Your task to perform on an android device: open a bookmark in the chrome app Image 0: 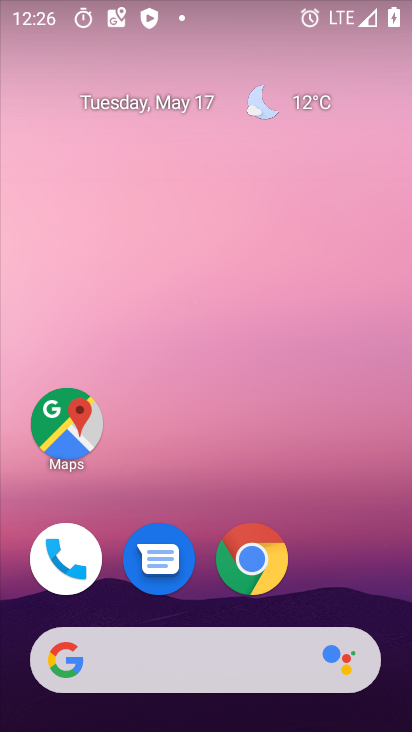
Step 0: click (249, 557)
Your task to perform on an android device: open a bookmark in the chrome app Image 1: 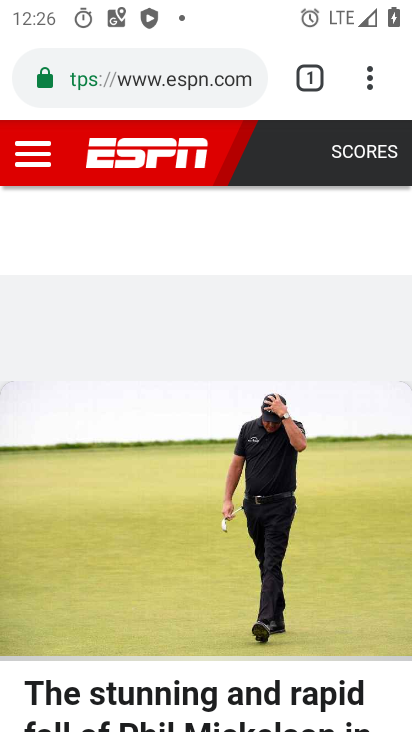
Step 1: click (377, 69)
Your task to perform on an android device: open a bookmark in the chrome app Image 2: 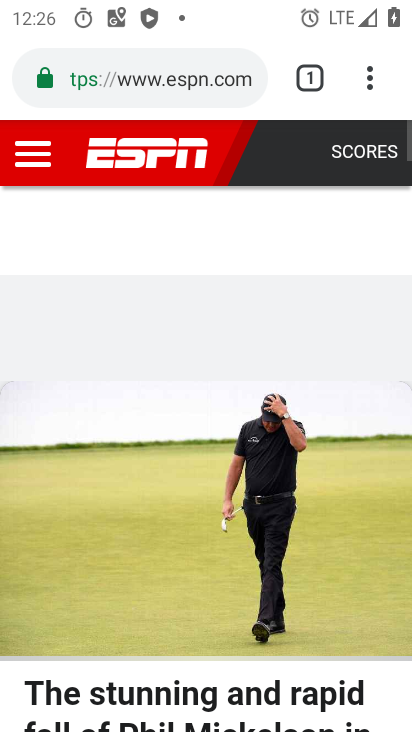
Step 2: drag from (365, 72) to (131, 300)
Your task to perform on an android device: open a bookmark in the chrome app Image 3: 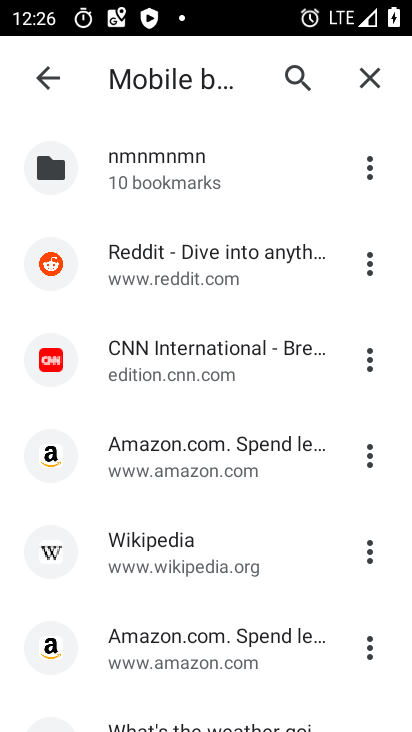
Step 3: click (183, 440)
Your task to perform on an android device: open a bookmark in the chrome app Image 4: 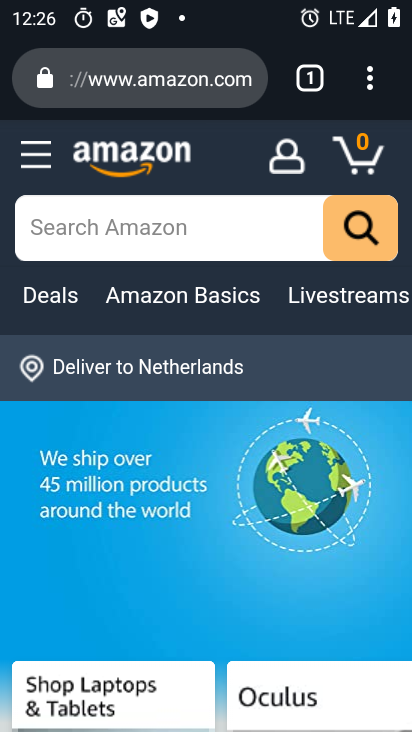
Step 4: task complete